Your task to perform on an android device: Go to Wikipedia Image 0: 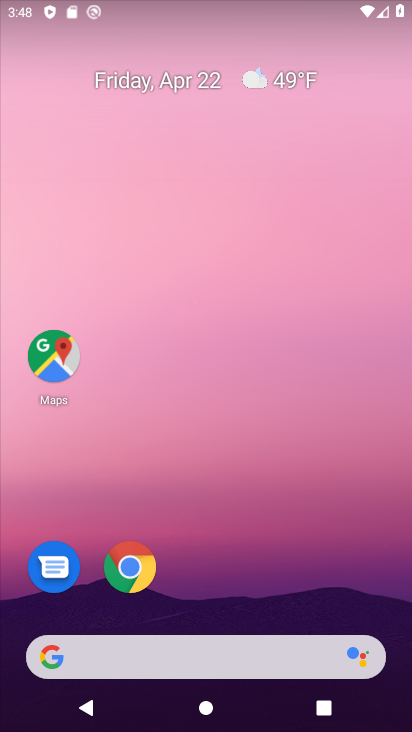
Step 0: drag from (223, 710) to (223, 133)
Your task to perform on an android device: Go to Wikipedia Image 1: 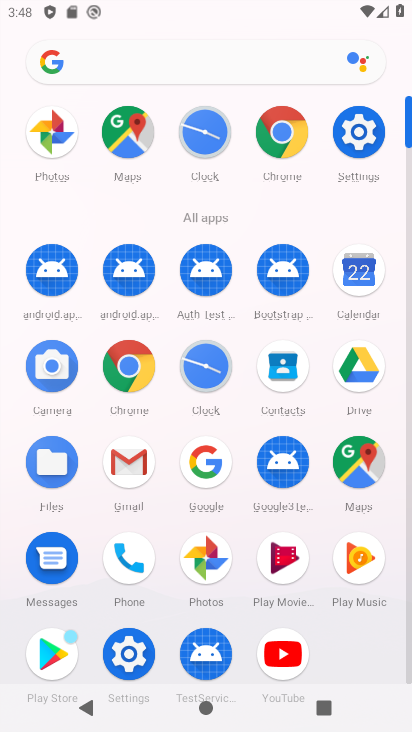
Step 1: click (131, 363)
Your task to perform on an android device: Go to Wikipedia Image 2: 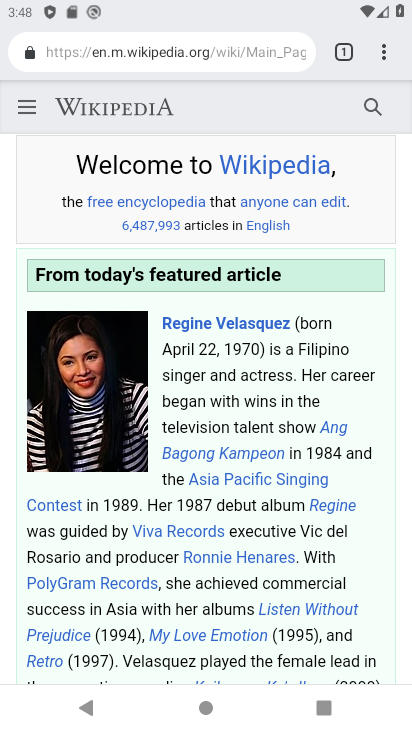
Step 2: task complete